Your task to perform on an android device: Go to network settings Image 0: 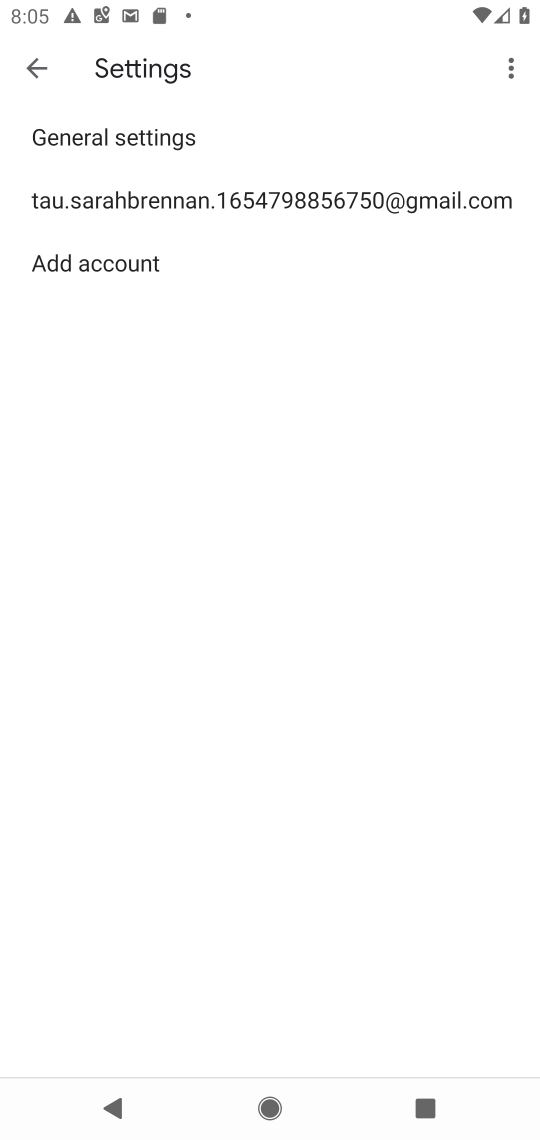
Step 0: press home button
Your task to perform on an android device: Go to network settings Image 1: 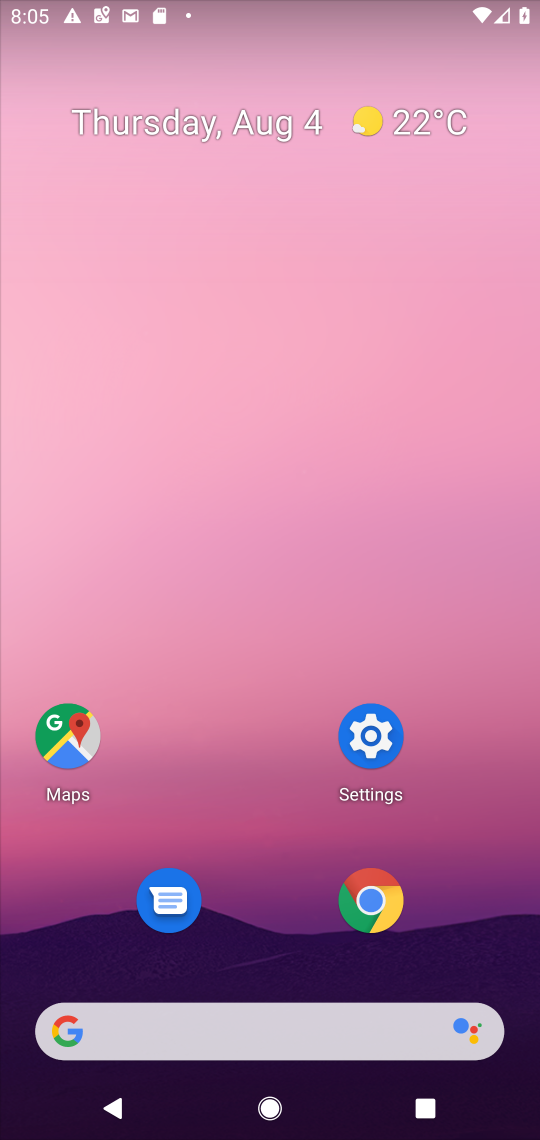
Step 1: click (375, 739)
Your task to perform on an android device: Go to network settings Image 2: 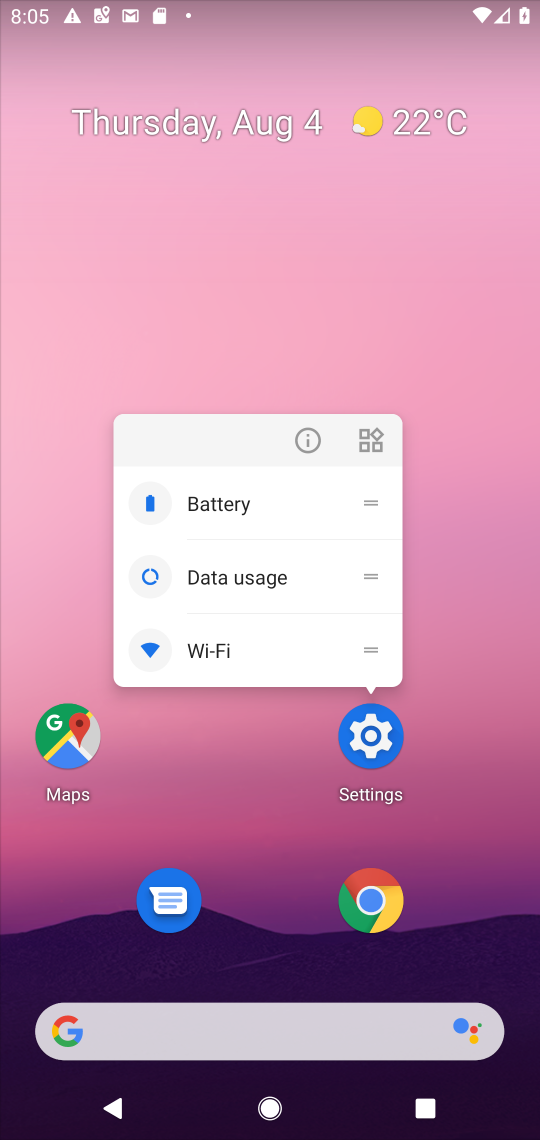
Step 2: click (373, 728)
Your task to perform on an android device: Go to network settings Image 3: 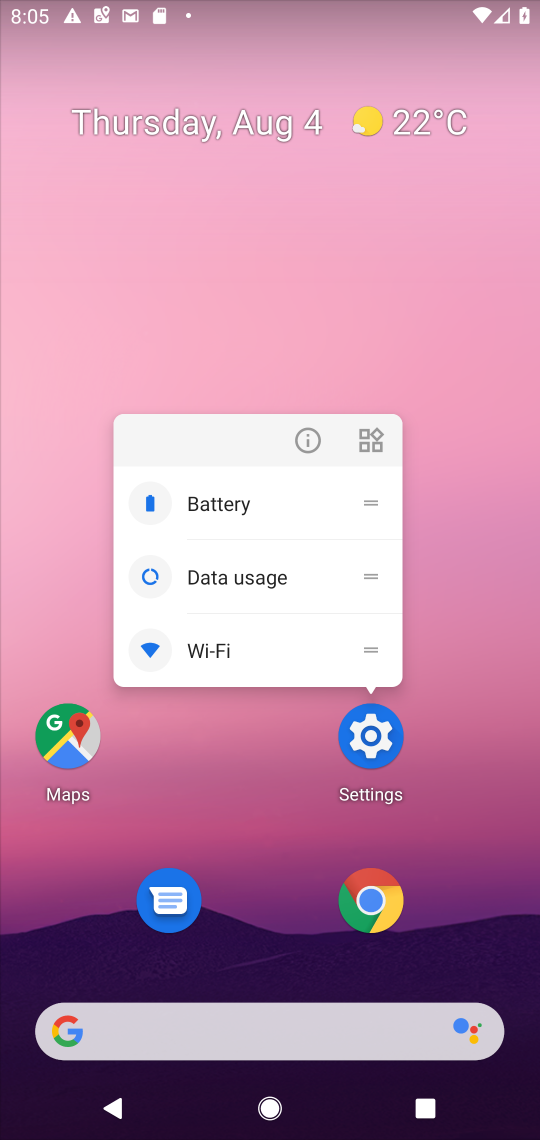
Step 3: click (373, 728)
Your task to perform on an android device: Go to network settings Image 4: 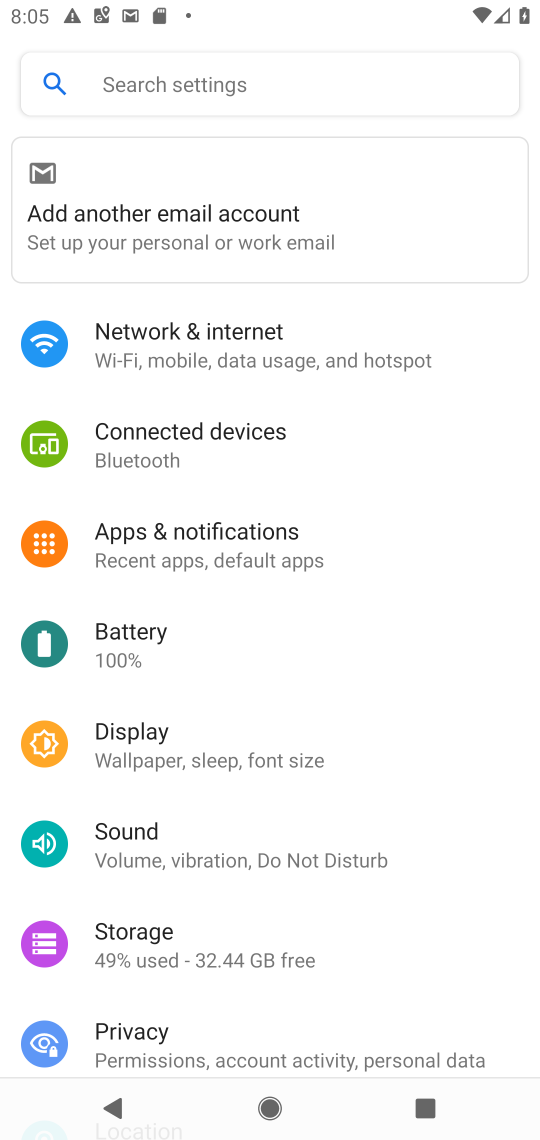
Step 4: click (205, 334)
Your task to perform on an android device: Go to network settings Image 5: 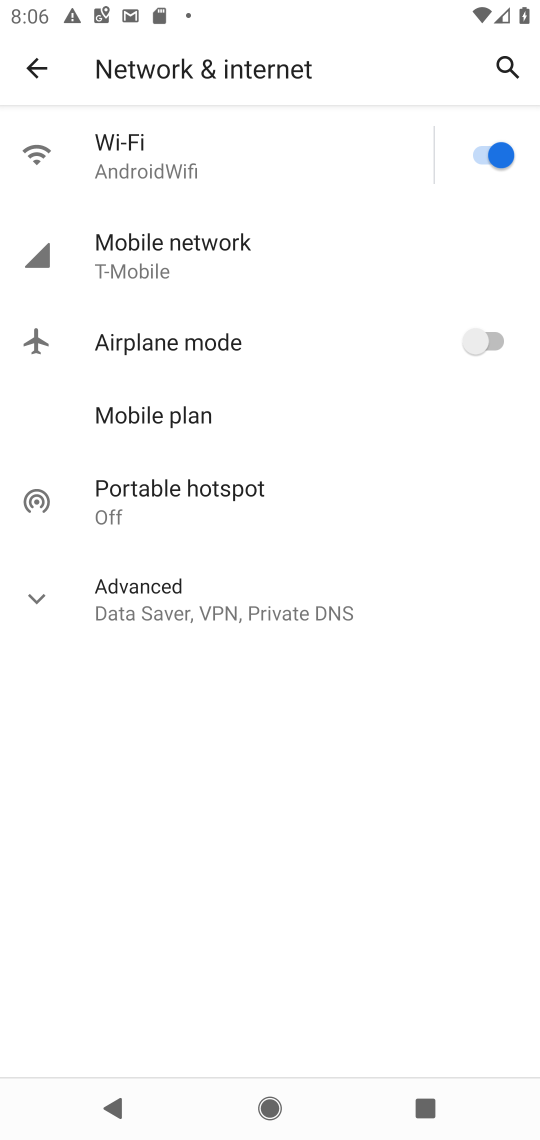
Step 5: task complete